Your task to perform on an android device: Go to Wikipedia Image 0: 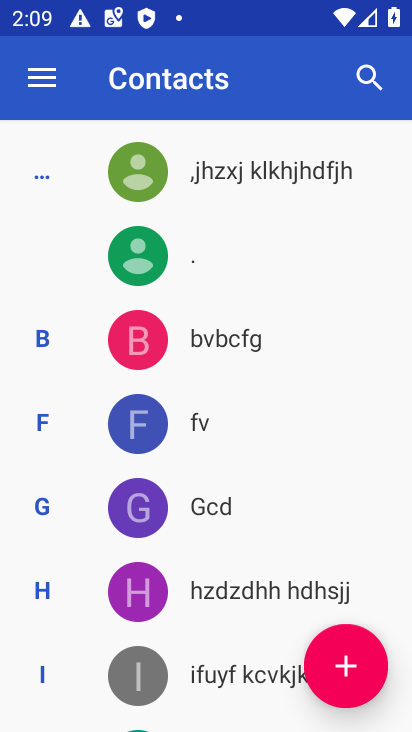
Step 0: press home button
Your task to perform on an android device: Go to Wikipedia Image 1: 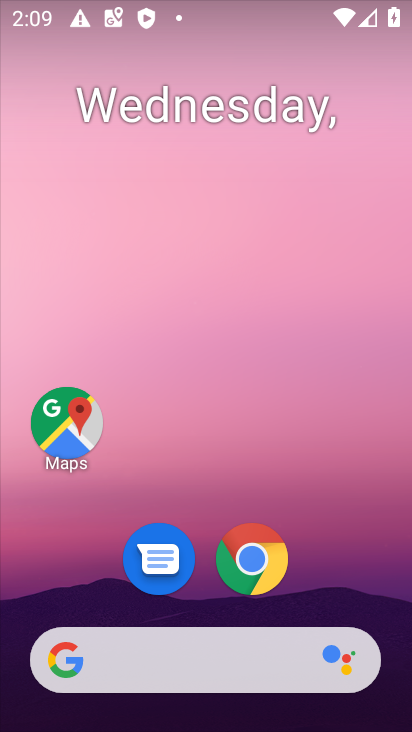
Step 1: click (255, 565)
Your task to perform on an android device: Go to Wikipedia Image 2: 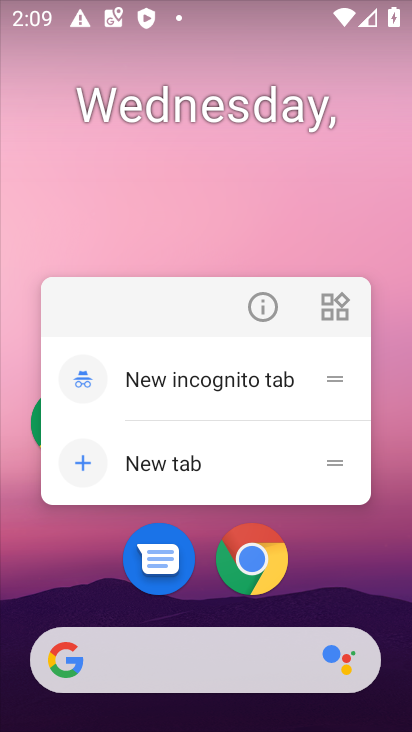
Step 2: click (245, 555)
Your task to perform on an android device: Go to Wikipedia Image 3: 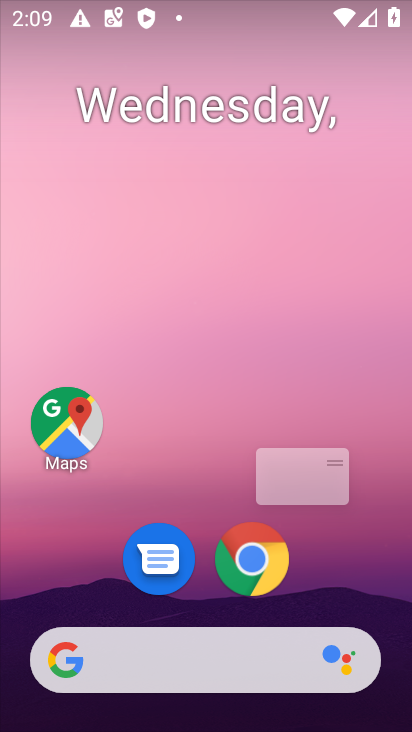
Step 3: click (255, 559)
Your task to perform on an android device: Go to Wikipedia Image 4: 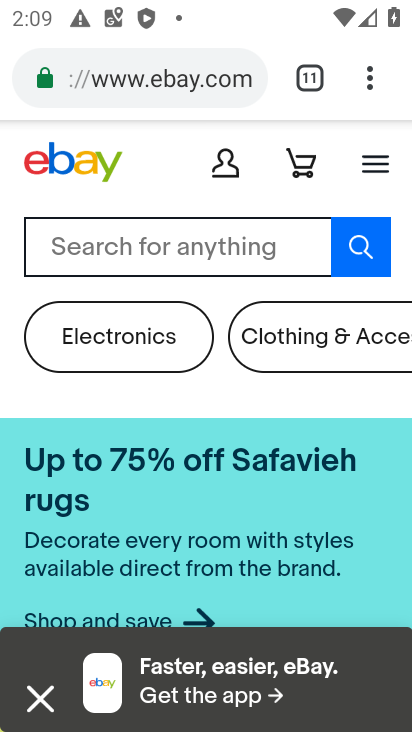
Step 4: click (369, 83)
Your task to perform on an android device: Go to Wikipedia Image 5: 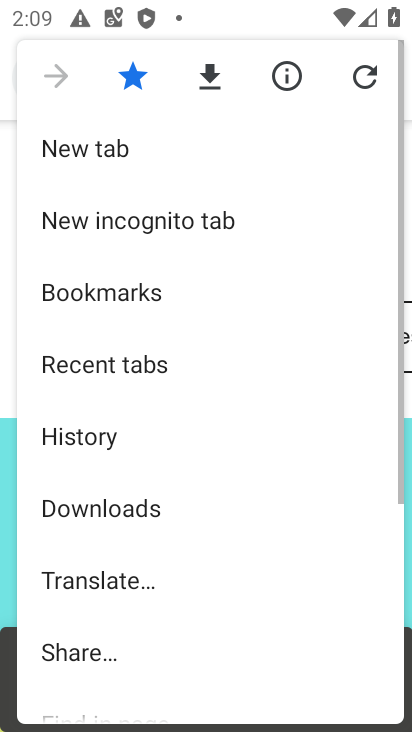
Step 5: click (97, 142)
Your task to perform on an android device: Go to Wikipedia Image 6: 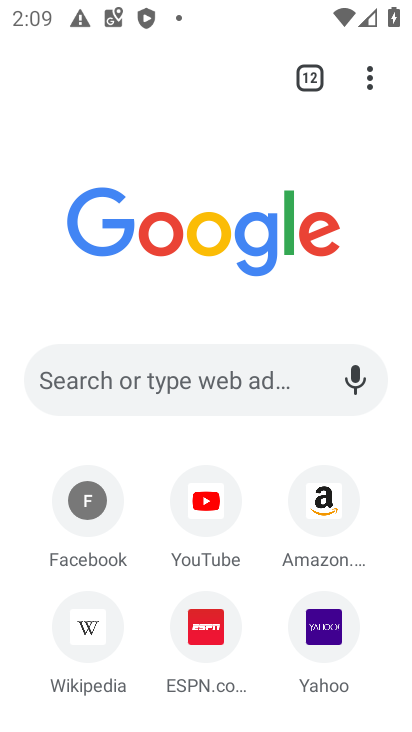
Step 6: click (71, 604)
Your task to perform on an android device: Go to Wikipedia Image 7: 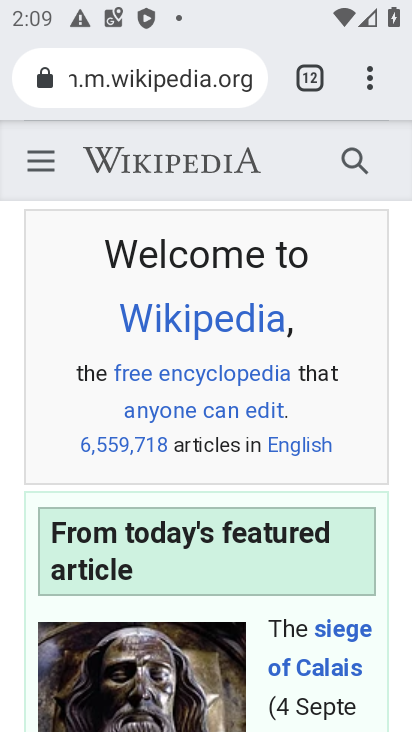
Step 7: task complete